Your task to perform on an android device: make emails show in primary in the gmail app Image 0: 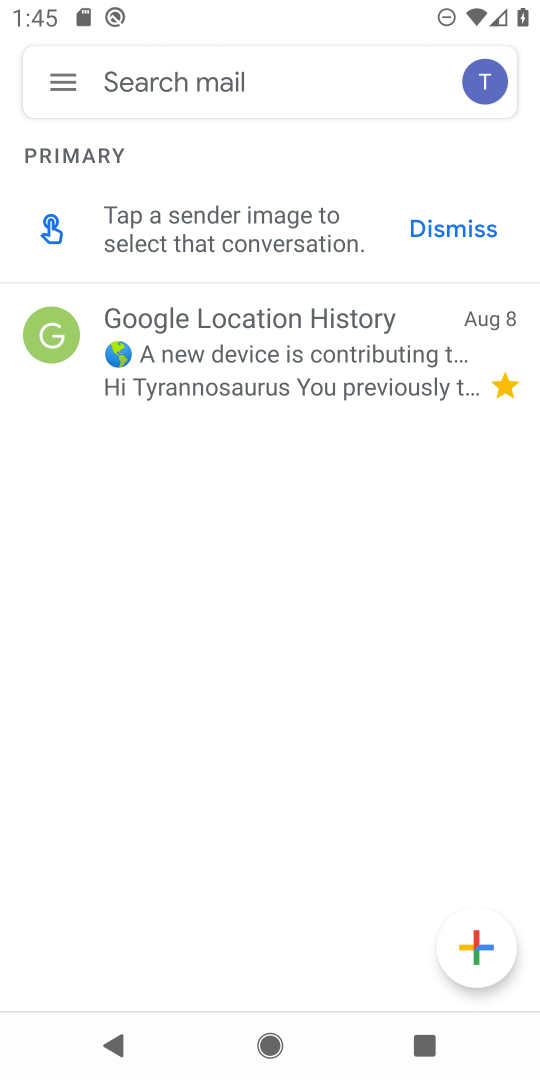
Step 0: task complete